Your task to perform on an android device: check storage Image 0: 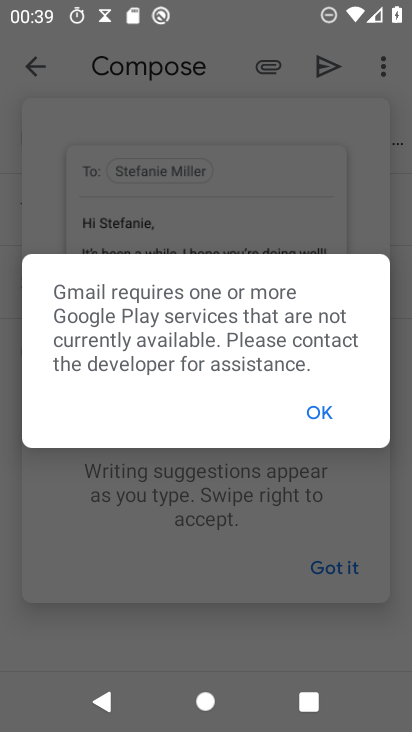
Step 0: press home button
Your task to perform on an android device: check storage Image 1: 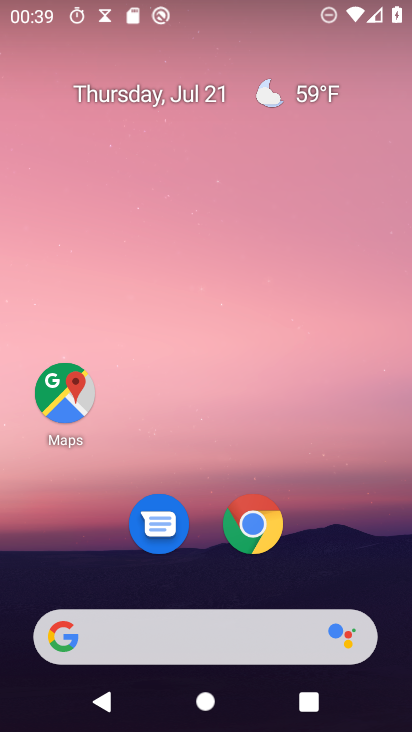
Step 1: drag from (187, 637) to (316, 32)
Your task to perform on an android device: check storage Image 2: 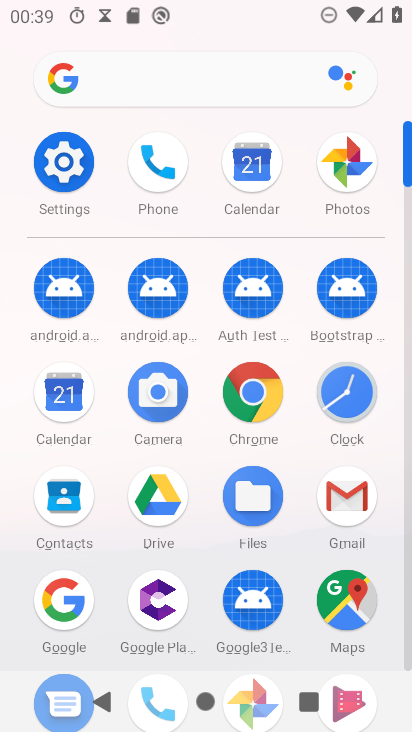
Step 2: click (69, 157)
Your task to perform on an android device: check storage Image 3: 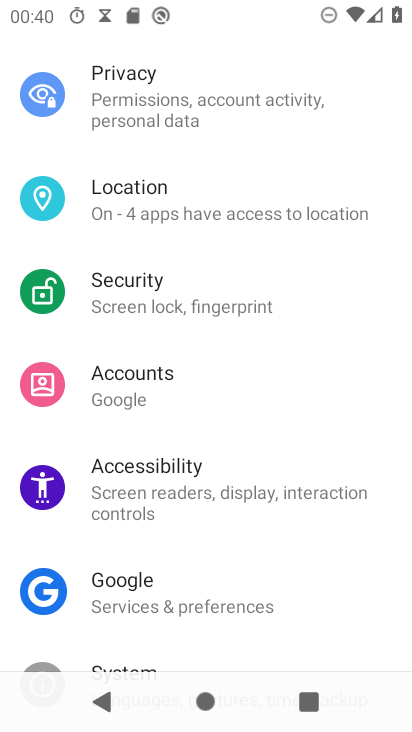
Step 3: drag from (293, 158) to (290, 655)
Your task to perform on an android device: check storage Image 4: 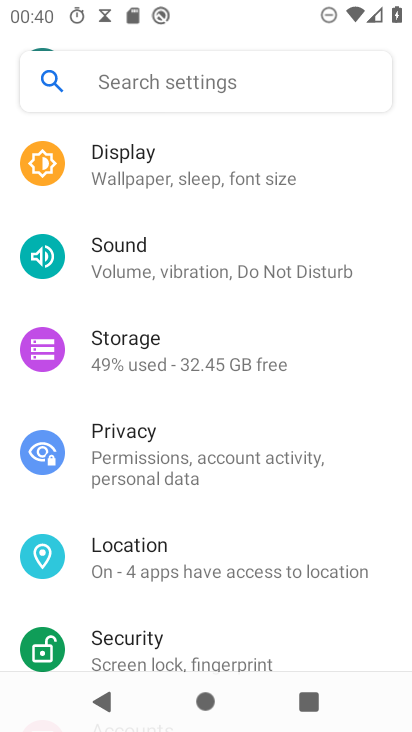
Step 4: drag from (223, 219) to (235, 416)
Your task to perform on an android device: check storage Image 5: 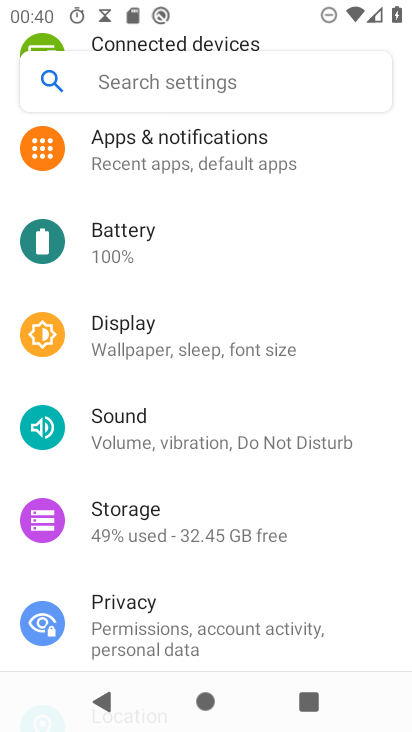
Step 5: click (158, 518)
Your task to perform on an android device: check storage Image 6: 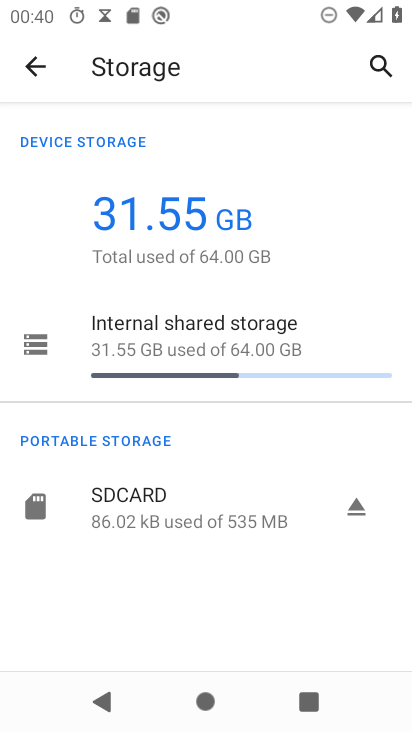
Step 6: task complete